Your task to perform on an android device: turn on showing notifications on the lock screen Image 0: 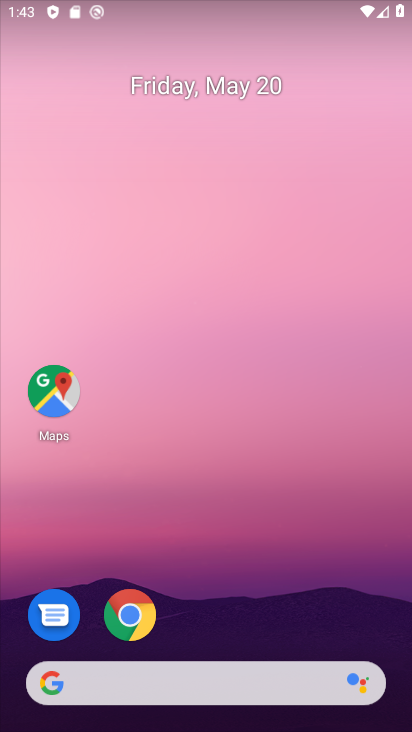
Step 0: drag from (259, 568) to (212, 198)
Your task to perform on an android device: turn on showing notifications on the lock screen Image 1: 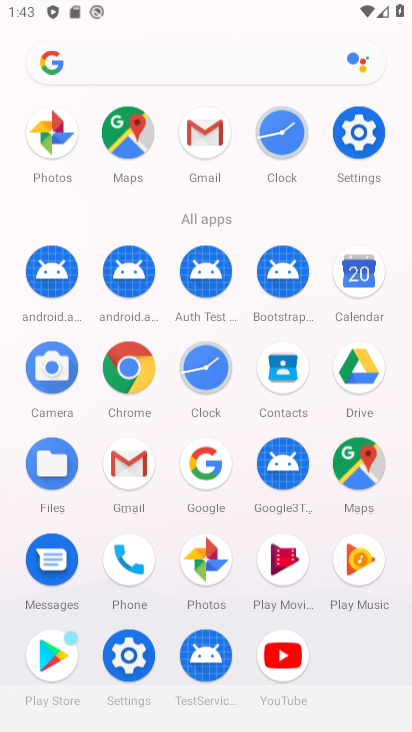
Step 1: drag from (229, 656) to (254, 302)
Your task to perform on an android device: turn on showing notifications on the lock screen Image 2: 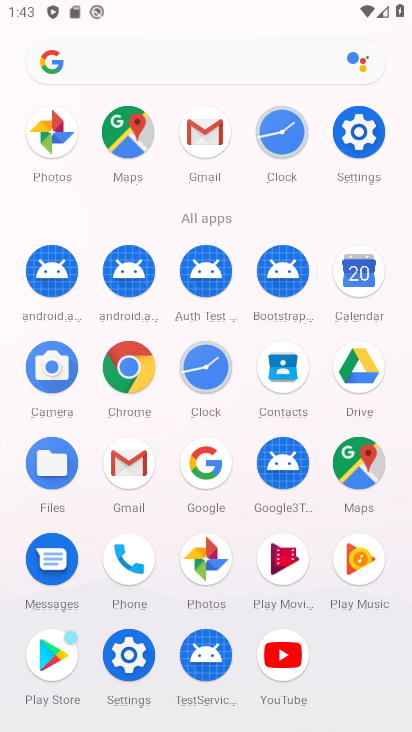
Step 2: click (360, 132)
Your task to perform on an android device: turn on showing notifications on the lock screen Image 3: 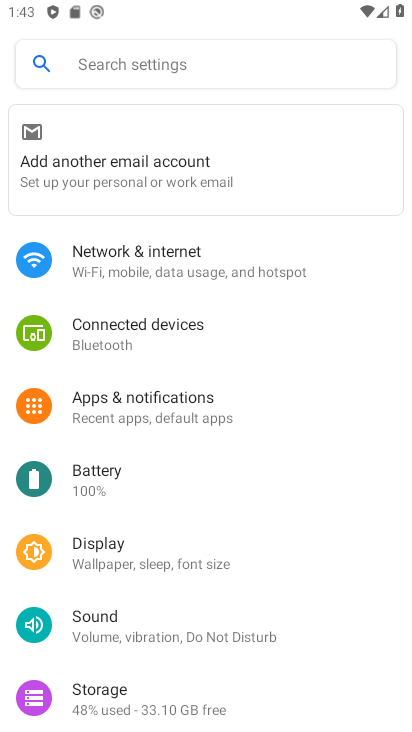
Step 3: click (174, 417)
Your task to perform on an android device: turn on showing notifications on the lock screen Image 4: 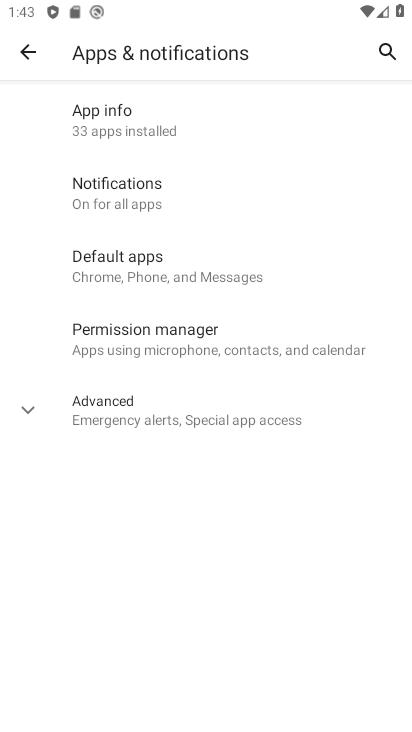
Step 4: click (145, 184)
Your task to perform on an android device: turn on showing notifications on the lock screen Image 5: 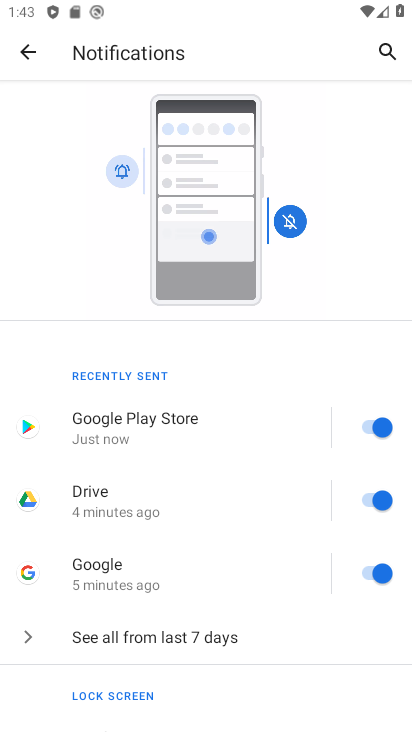
Step 5: drag from (224, 649) to (253, 341)
Your task to perform on an android device: turn on showing notifications on the lock screen Image 6: 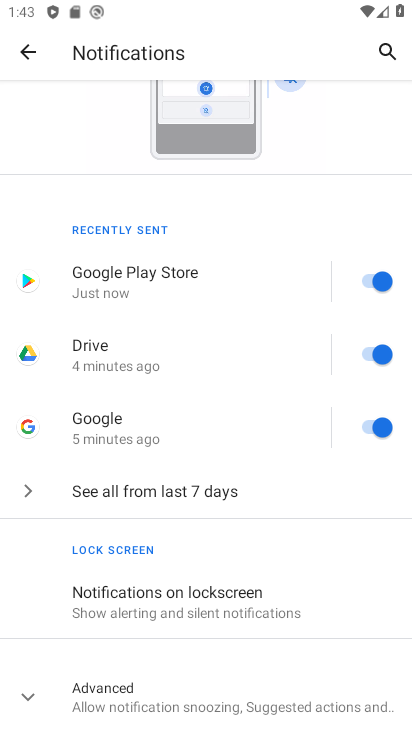
Step 6: click (141, 605)
Your task to perform on an android device: turn on showing notifications on the lock screen Image 7: 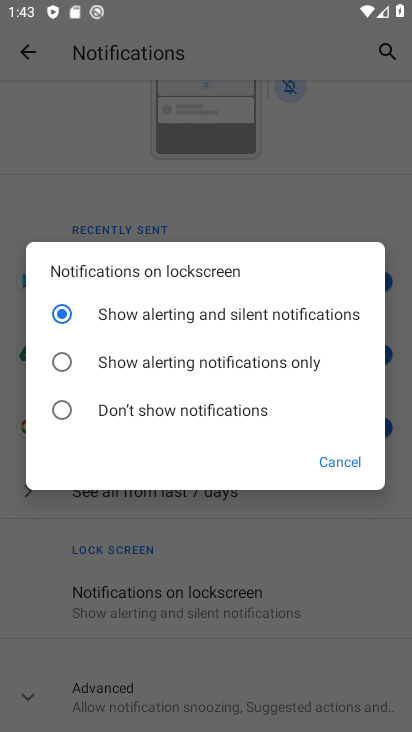
Step 7: click (178, 369)
Your task to perform on an android device: turn on showing notifications on the lock screen Image 8: 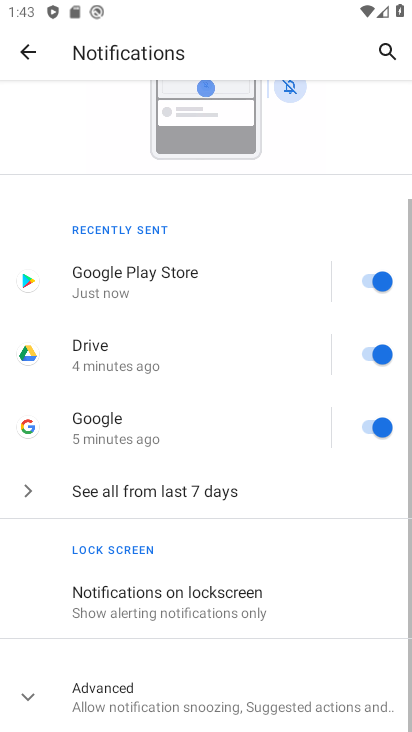
Step 8: task complete